Your task to perform on an android device: Go to Google Image 0: 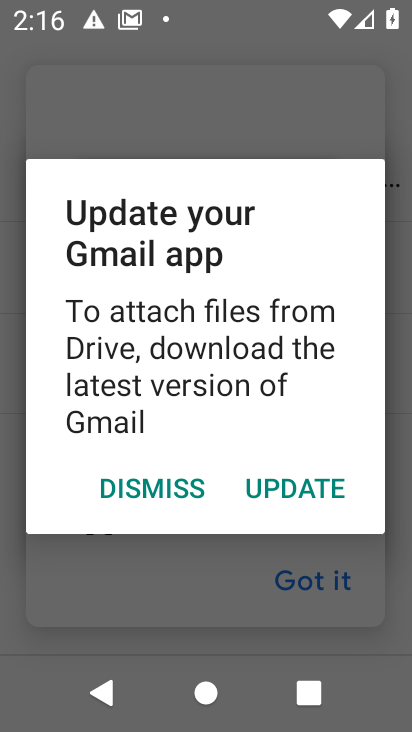
Step 0: task complete